Your task to perform on an android device: Open Wikipedia Image 0: 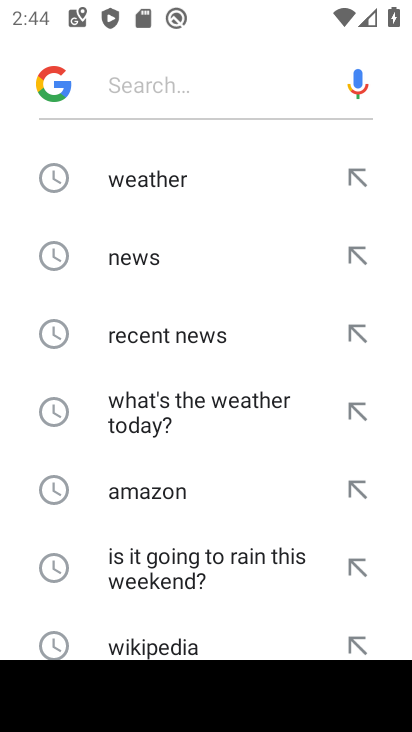
Step 0: press home button
Your task to perform on an android device: Open Wikipedia Image 1: 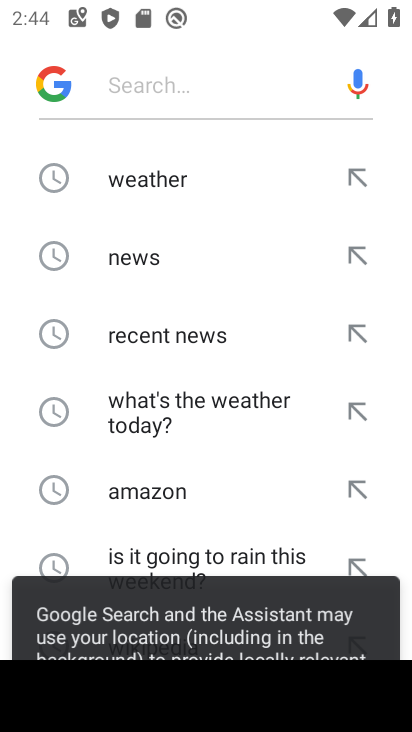
Step 1: press home button
Your task to perform on an android device: Open Wikipedia Image 2: 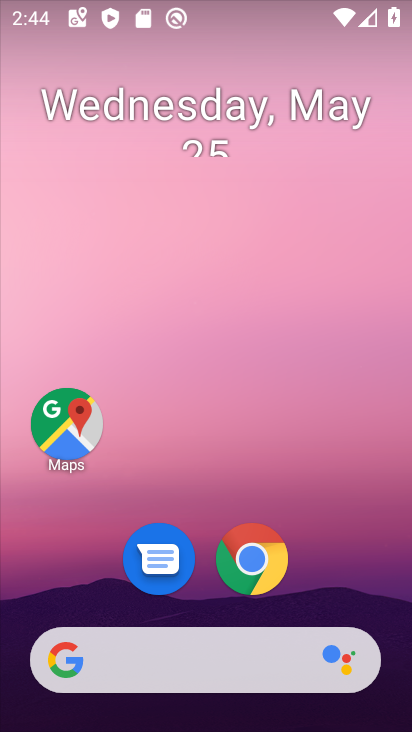
Step 2: click (250, 555)
Your task to perform on an android device: Open Wikipedia Image 3: 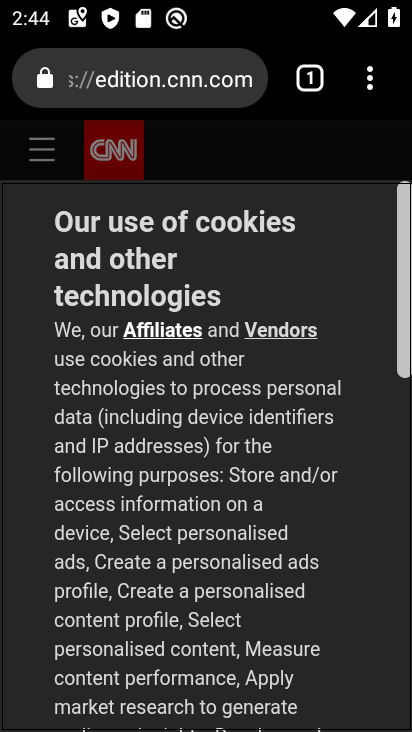
Step 3: click (308, 74)
Your task to perform on an android device: Open Wikipedia Image 4: 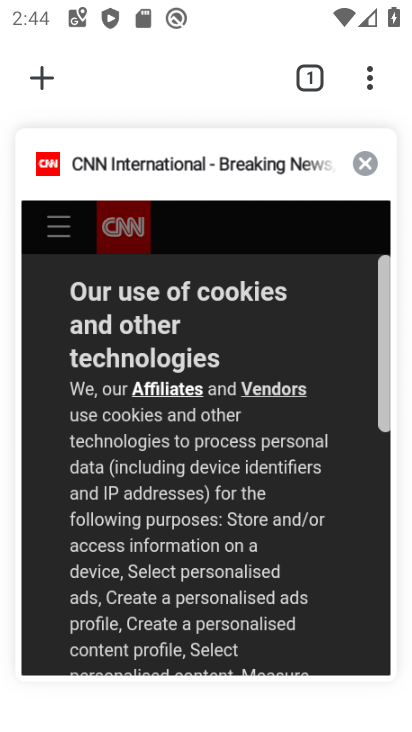
Step 4: click (364, 158)
Your task to perform on an android device: Open Wikipedia Image 5: 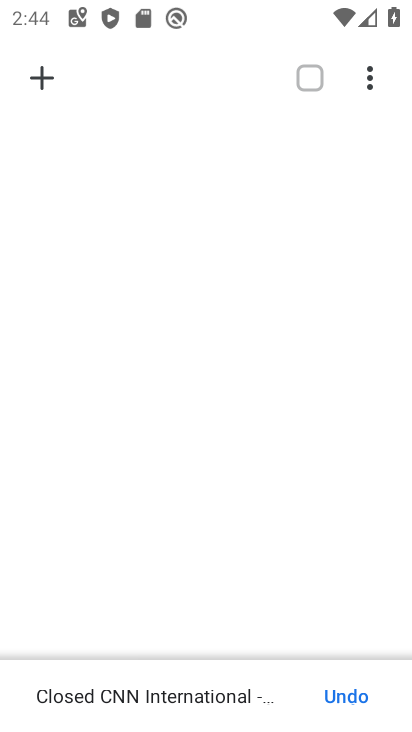
Step 5: click (46, 77)
Your task to perform on an android device: Open Wikipedia Image 6: 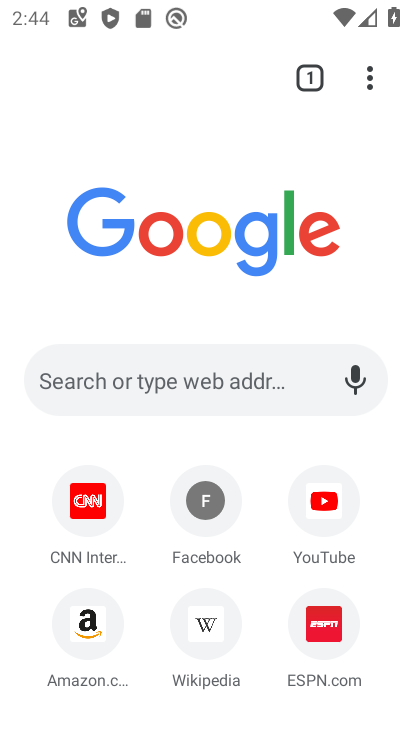
Step 6: click (202, 621)
Your task to perform on an android device: Open Wikipedia Image 7: 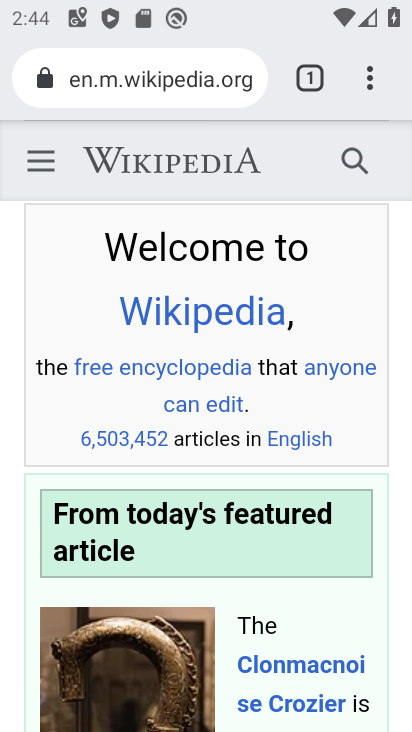
Step 7: task complete